Your task to perform on an android device: manage bookmarks in the chrome app Image 0: 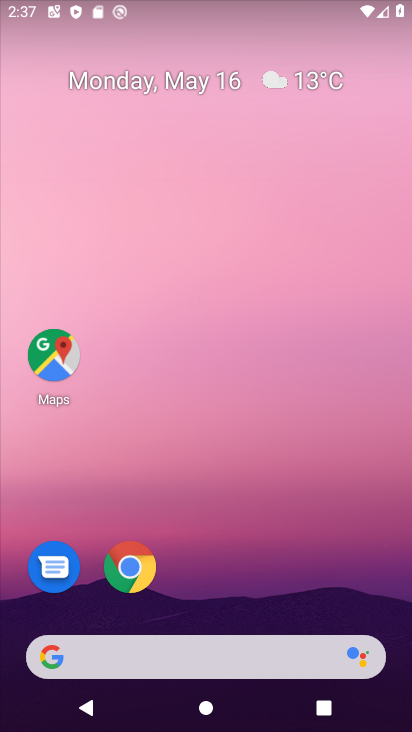
Step 0: click (132, 569)
Your task to perform on an android device: manage bookmarks in the chrome app Image 1: 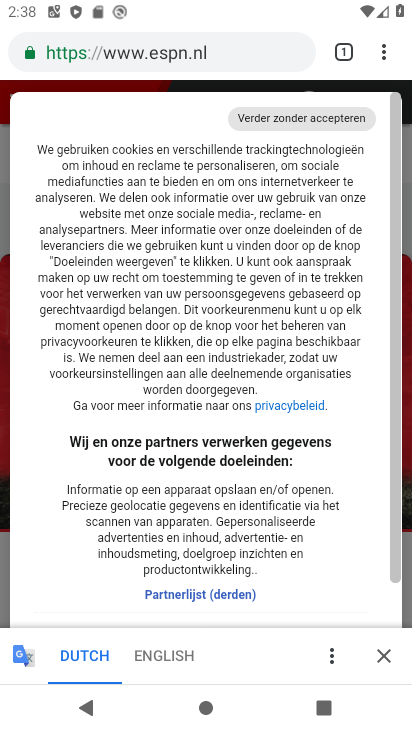
Step 1: task complete